Your task to perform on an android device: Do I have any events this weekend? Image 0: 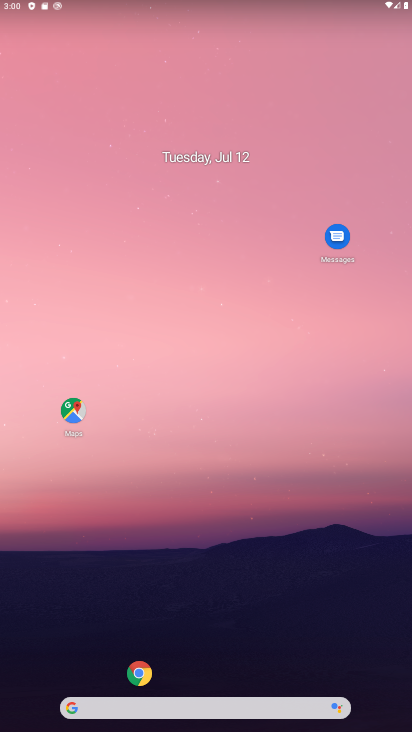
Step 0: drag from (40, 688) to (201, 0)
Your task to perform on an android device: Do I have any events this weekend? Image 1: 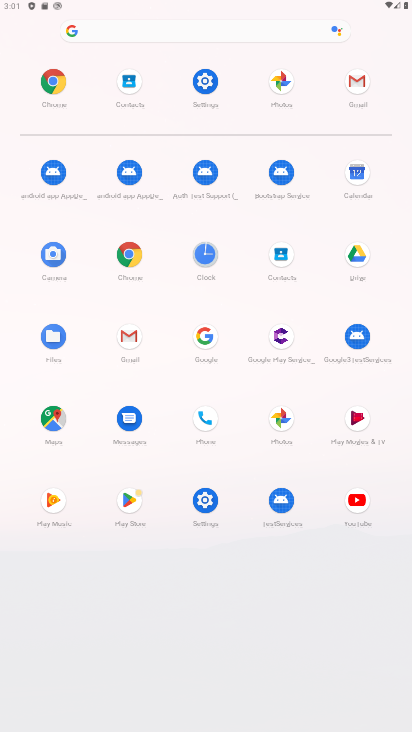
Step 1: click (289, 254)
Your task to perform on an android device: Do I have any events this weekend? Image 2: 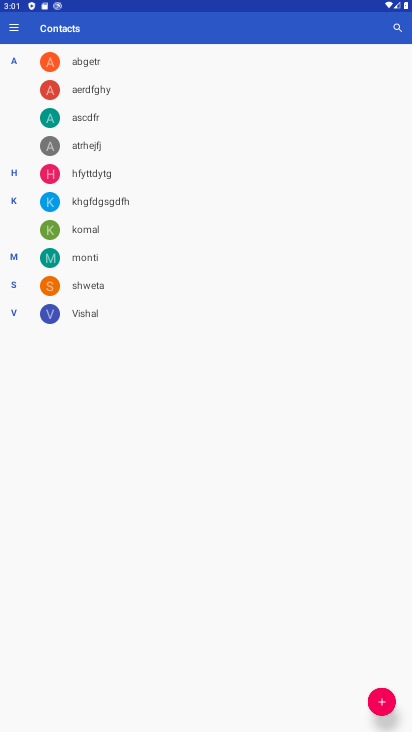
Step 2: press home button
Your task to perform on an android device: Do I have any events this weekend? Image 3: 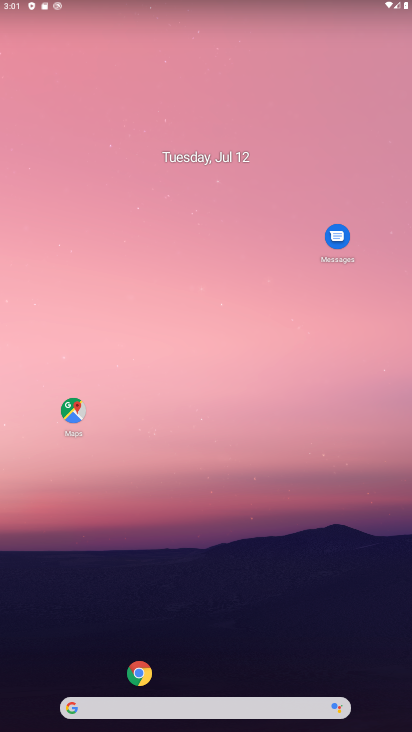
Step 3: drag from (45, 673) to (146, 193)
Your task to perform on an android device: Do I have any events this weekend? Image 4: 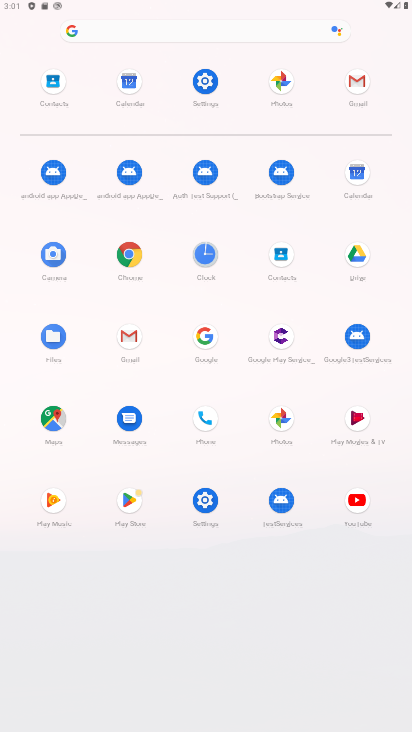
Step 4: click (362, 176)
Your task to perform on an android device: Do I have any events this weekend? Image 5: 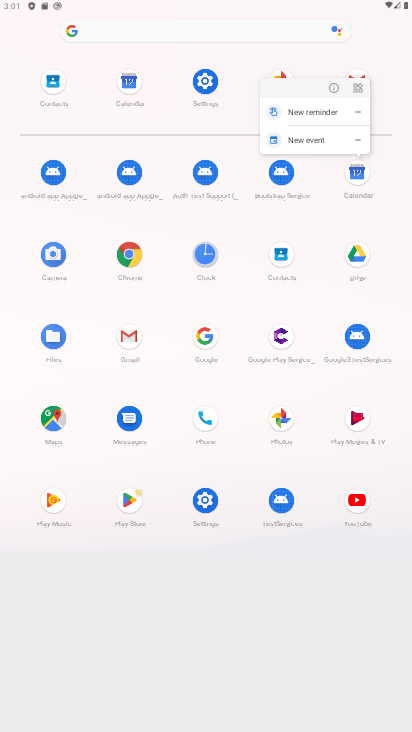
Step 5: click (361, 182)
Your task to perform on an android device: Do I have any events this weekend? Image 6: 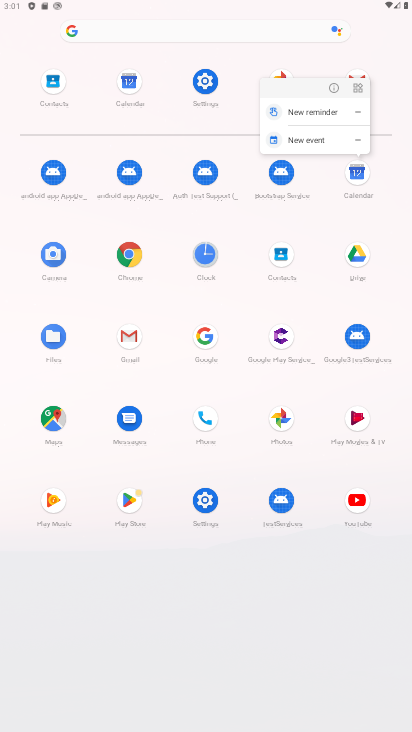
Step 6: click (352, 172)
Your task to perform on an android device: Do I have any events this weekend? Image 7: 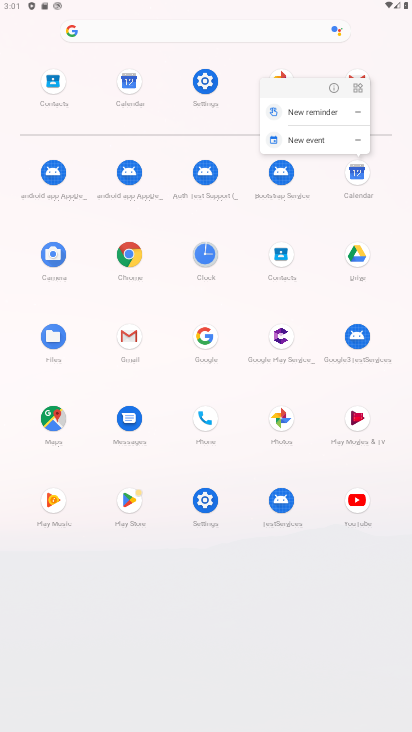
Step 7: click (354, 172)
Your task to perform on an android device: Do I have any events this weekend? Image 8: 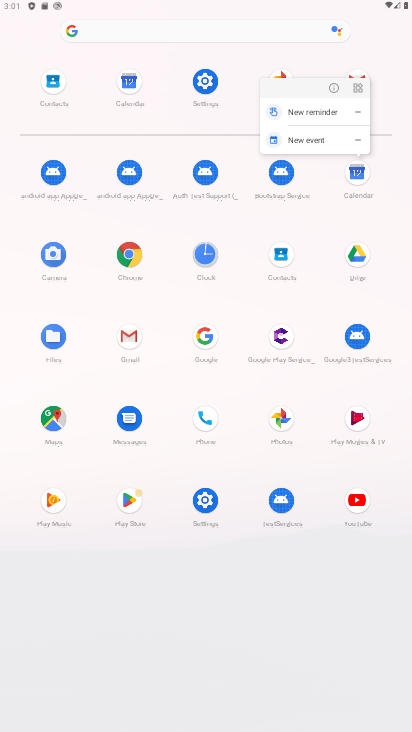
Step 8: task complete